Your task to perform on an android device: turn on showing notifications on the lock screen Image 0: 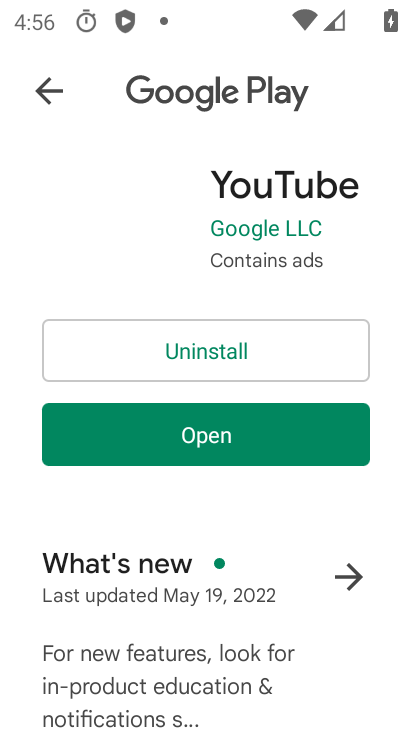
Step 0: drag from (264, 657) to (310, 353)
Your task to perform on an android device: turn on showing notifications on the lock screen Image 1: 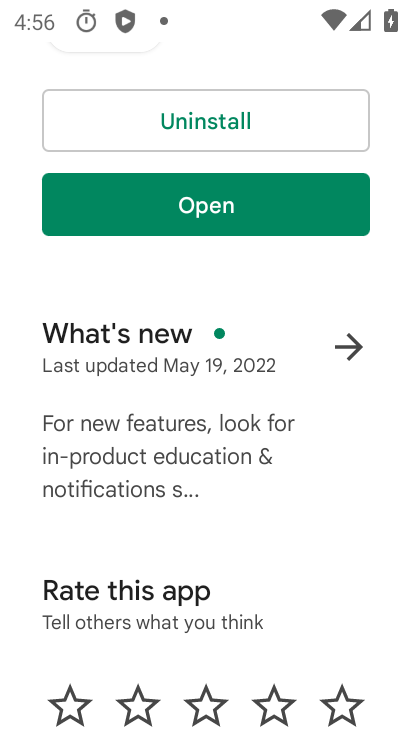
Step 1: press home button
Your task to perform on an android device: turn on showing notifications on the lock screen Image 2: 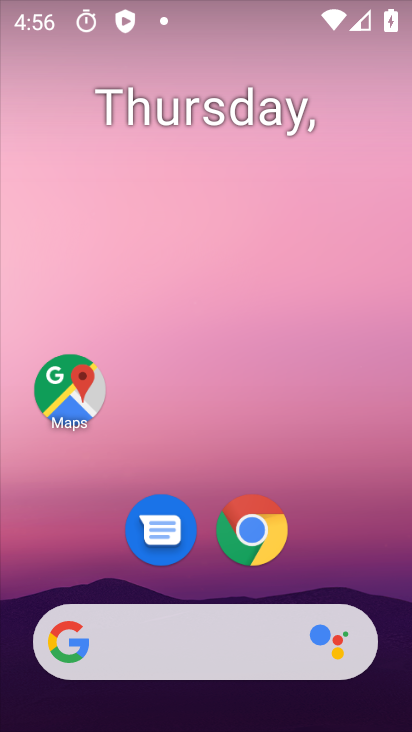
Step 2: drag from (253, 622) to (339, 4)
Your task to perform on an android device: turn on showing notifications on the lock screen Image 3: 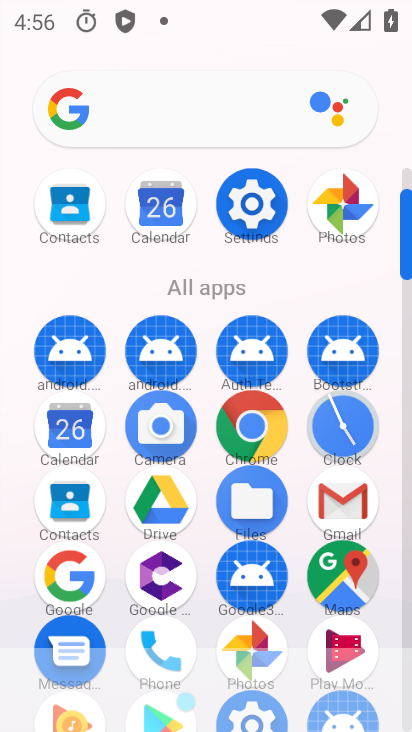
Step 3: click (254, 219)
Your task to perform on an android device: turn on showing notifications on the lock screen Image 4: 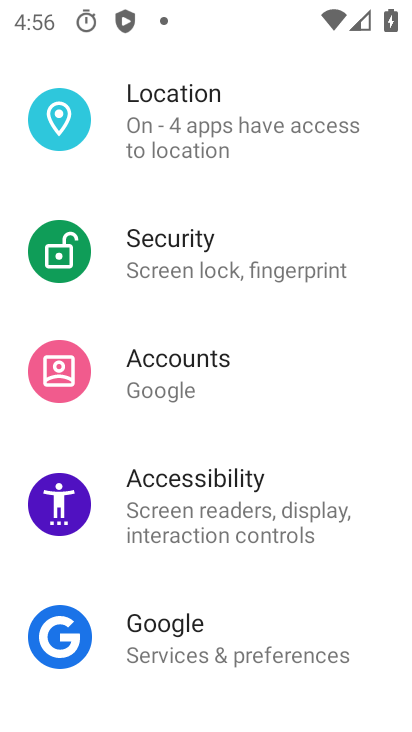
Step 4: drag from (229, 242) to (204, 701)
Your task to perform on an android device: turn on showing notifications on the lock screen Image 5: 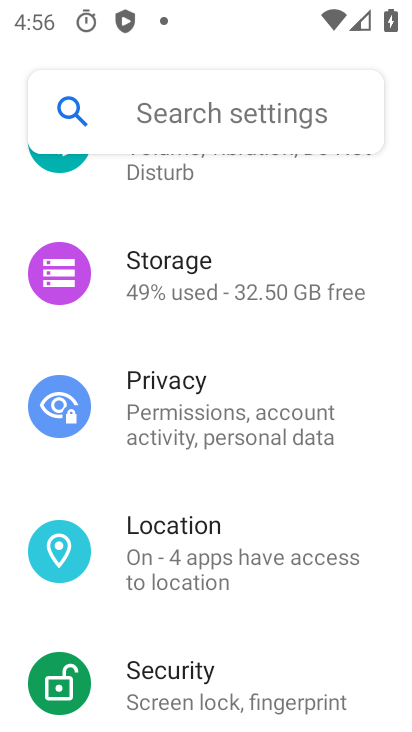
Step 5: drag from (233, 281) to (1, 438)
Your task to perform on an android device: turn on showing notifications on the lock screen Image 6: 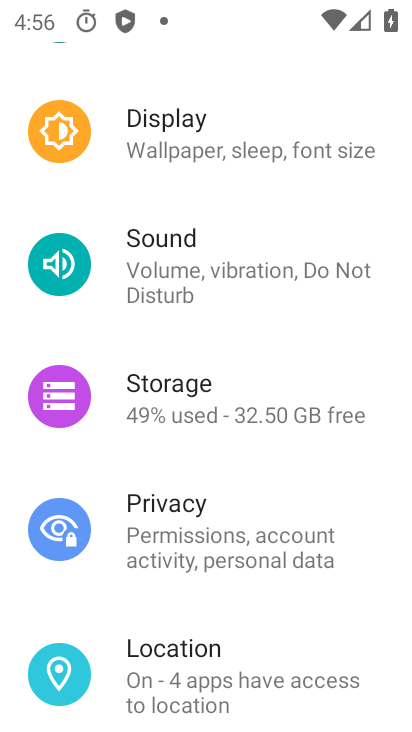
Step 6: drag from (223, 242) to (198, 436)
Your task to perform on an android device: turn on showing notifications on the lock screen Image 7: 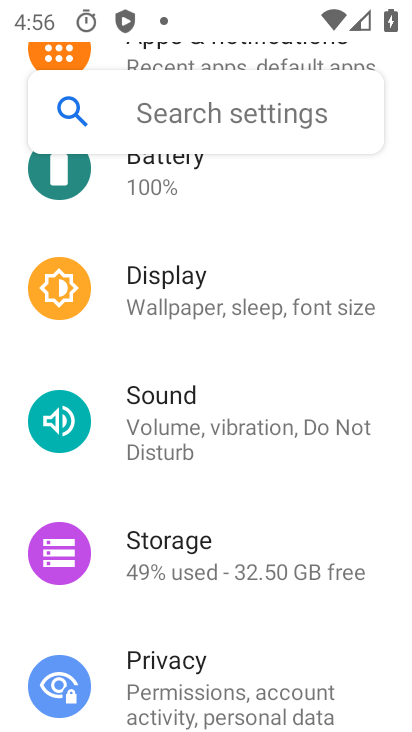
Step 7: drag from (242, 287) to (204, 730)
Your task to perform on an android device: turn on showing notifications on the lock screen Image 8: 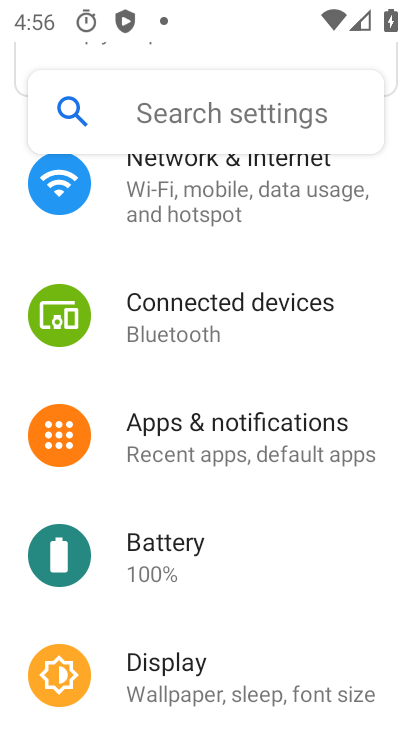
Step 8: click (242, 434)
Your task to perform on an android device: turn on showing notifications on the lock screen Image 9: 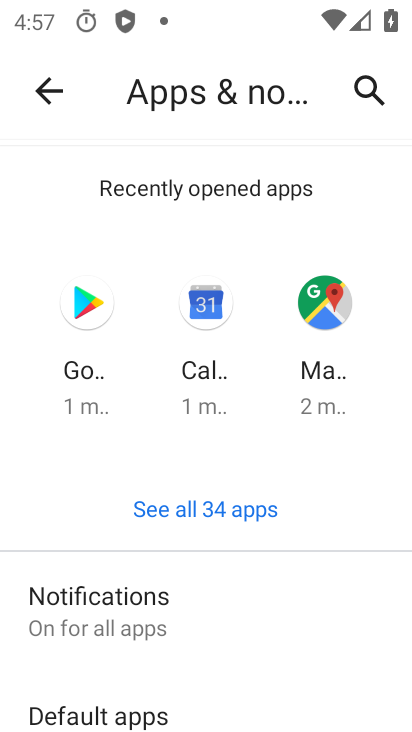
Step 9: drag from (190, 674) to (261, 227)
Your task to perform on an android device: turn on showing notifications on the lock screen Image 10: 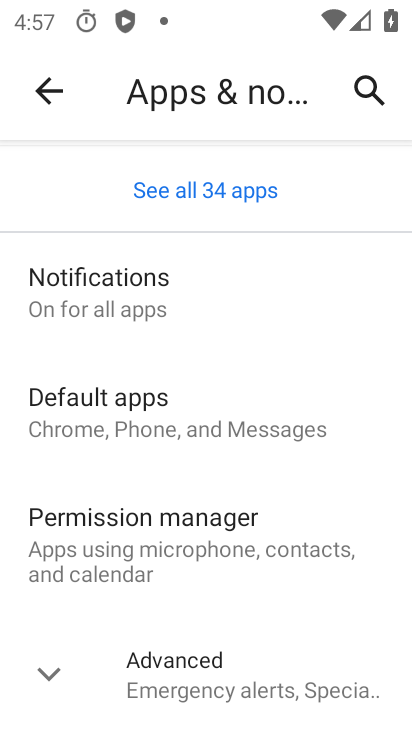
Step 10: click (258, 690)
Your task to perform on an android device: turn on showing notifications on the lock screen Image 11: 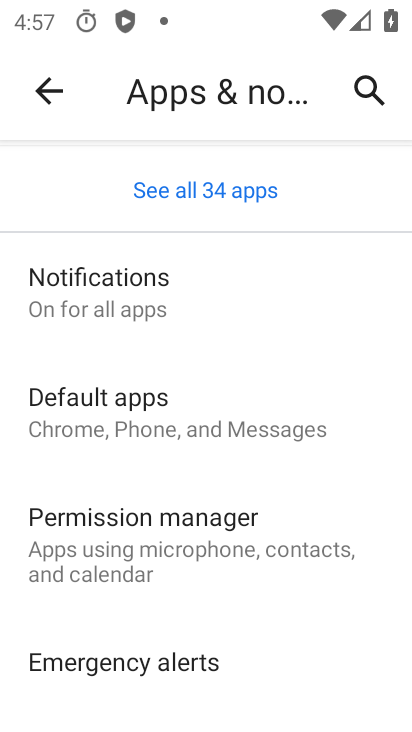
Step 11: drag from (258, 690) to (274, 385)
Your task to perform on an android device: turn on showing notifications on the lock screen Image 12: 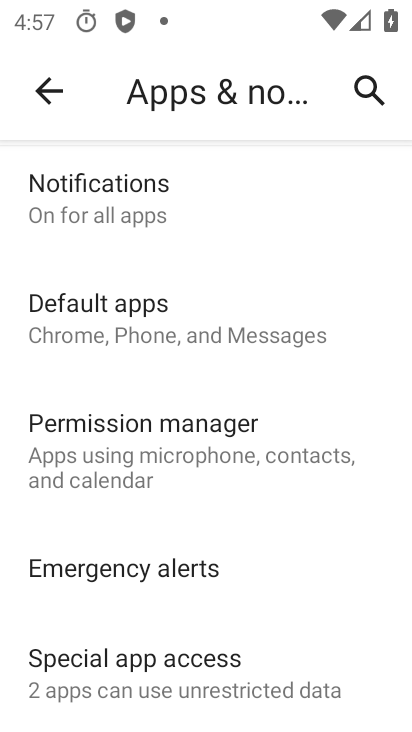
Step 12: click (225, 201)
Your task to perform on an android device: turn on showing notifications on the lock screen Image 13: 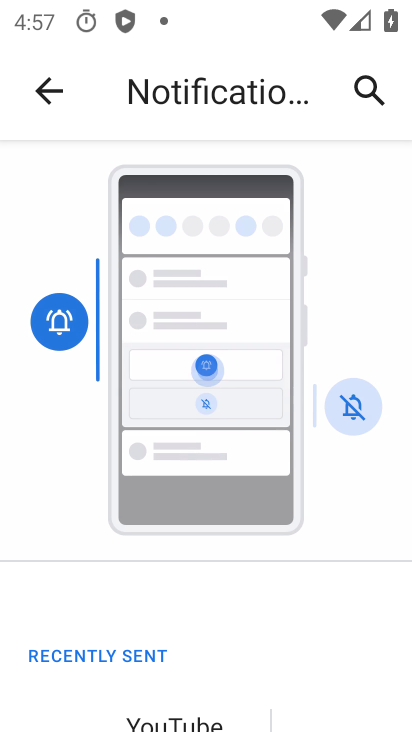
Step 13: drag from (196, 694) to (296, 82)
Your task to perform on an android device: turn on showing notifications on the lock screen Image 14: 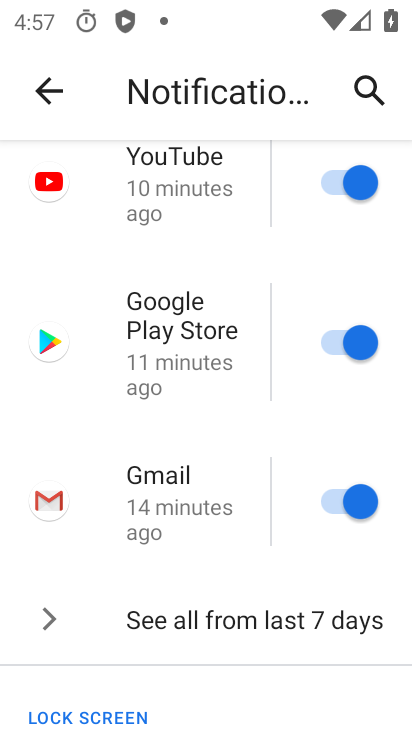
Step 14: drag from (175, 650) to (269, 174)
Your task to perform on an android device: turn on showing notifications on the lock screen Image 15: 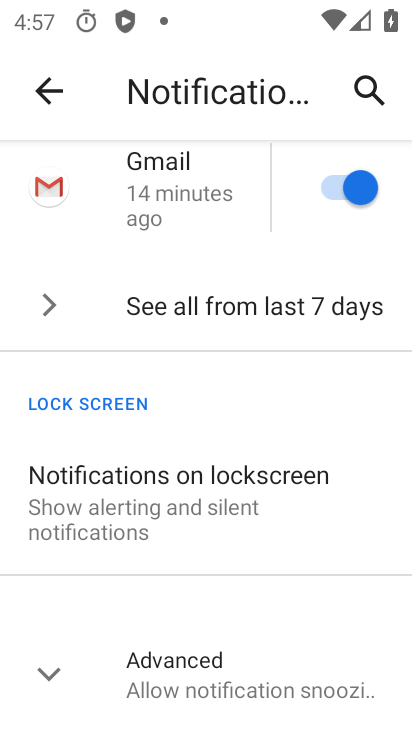
Step 15: click (240, 503)
Your task to perform on an android device: turn on showing notifications on the lock screen Image 16: 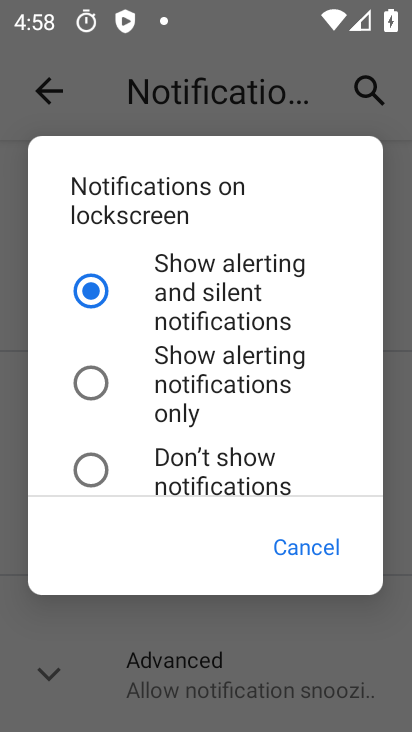
Step 16: task complete